Your task to perform on an android device: Clear the shopping cart on amazon. Add "logitech g910" to the cart on amazon Image 0: 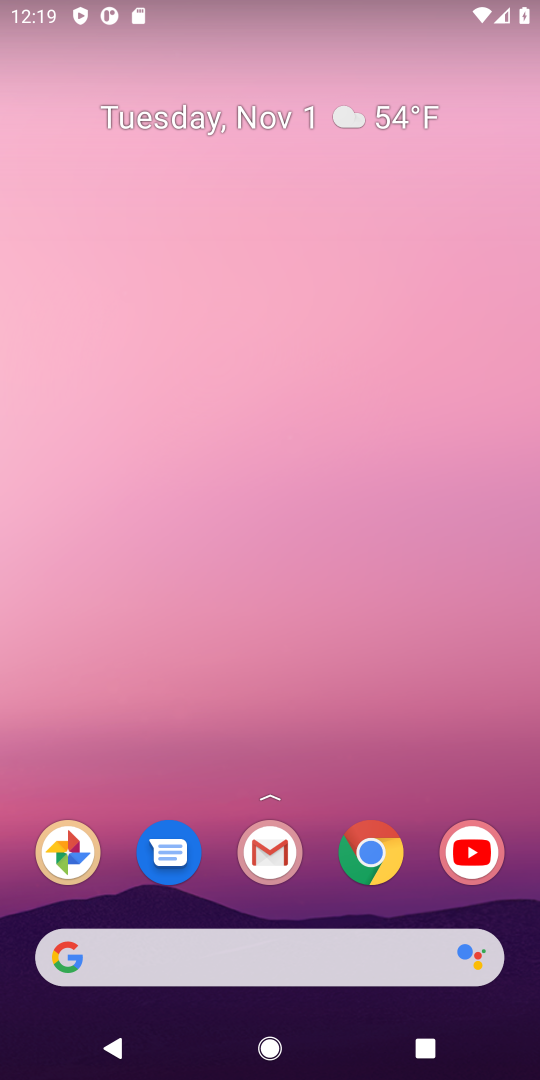
Step 0: click (383, 866)
Your task to perform on an android device: Clear the shopping cart on amazon. Add "logitech g910" to the cart on amazon Image 1: 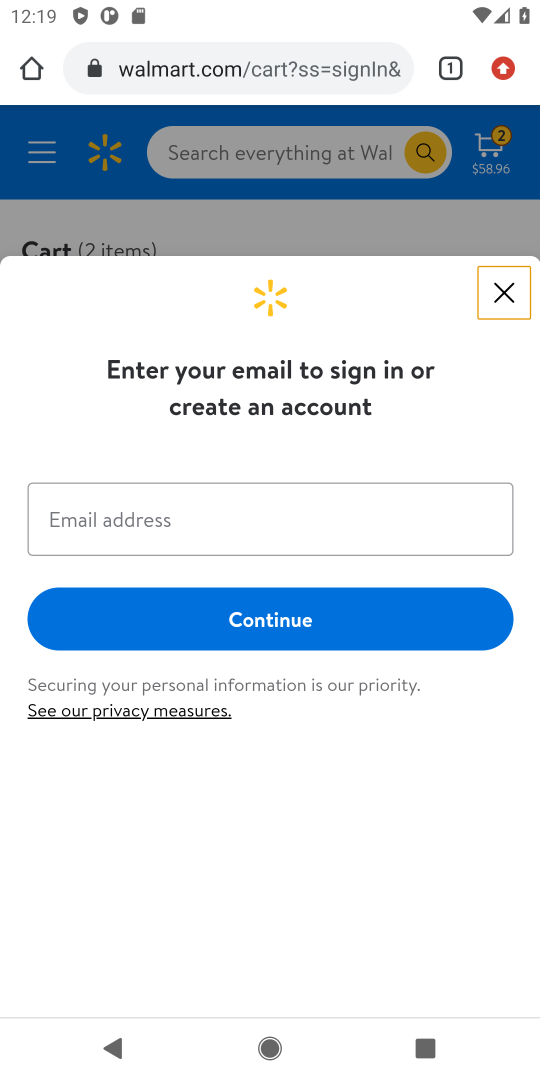
Step 1: click (209, 62)
Your task to perform on an android device: Clear the shopping cart on amazon. Add "logitech g910" to the cart on amazon Image 2: 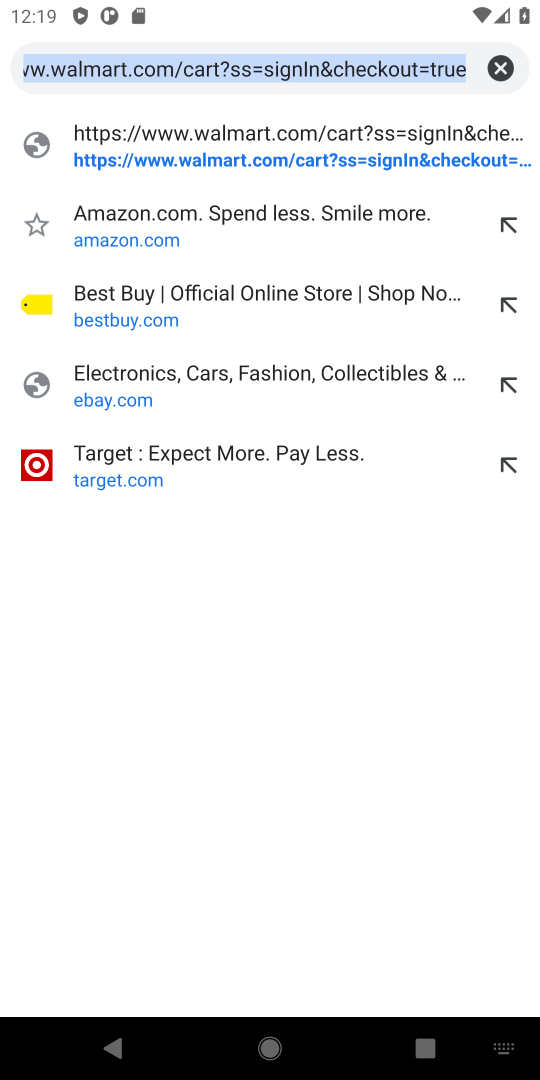
Step 2: type "amazon"
Your task to perform on an android device: Clear the shopping cart on amazon. Add "logitech g910" to the cart on amazon Image 3: 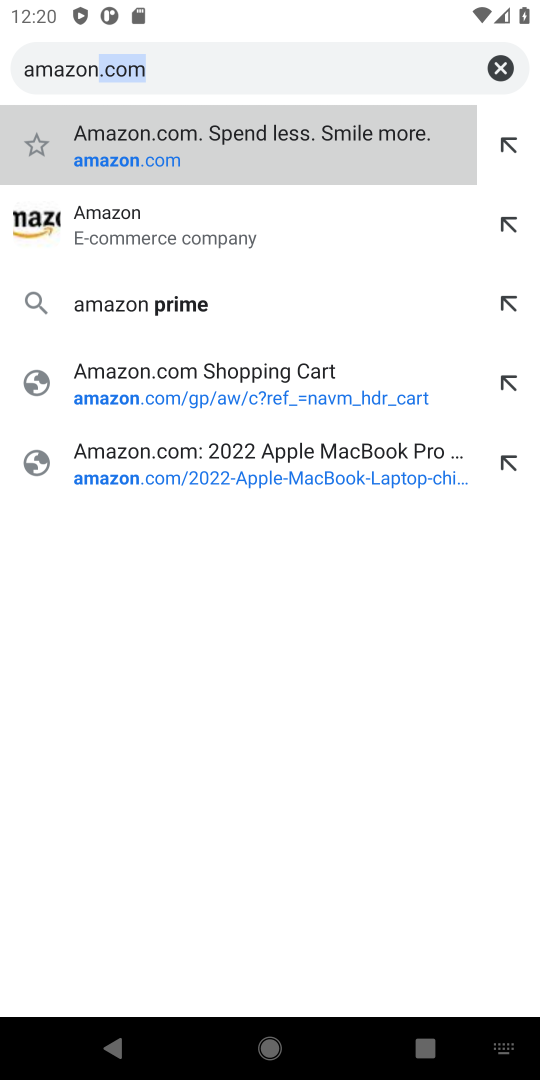
Step 3: press enter
Your task to perform on an android device: Clear the shopping cart on amazon. Add "logitech g910" to the cart on amazon Image 4: 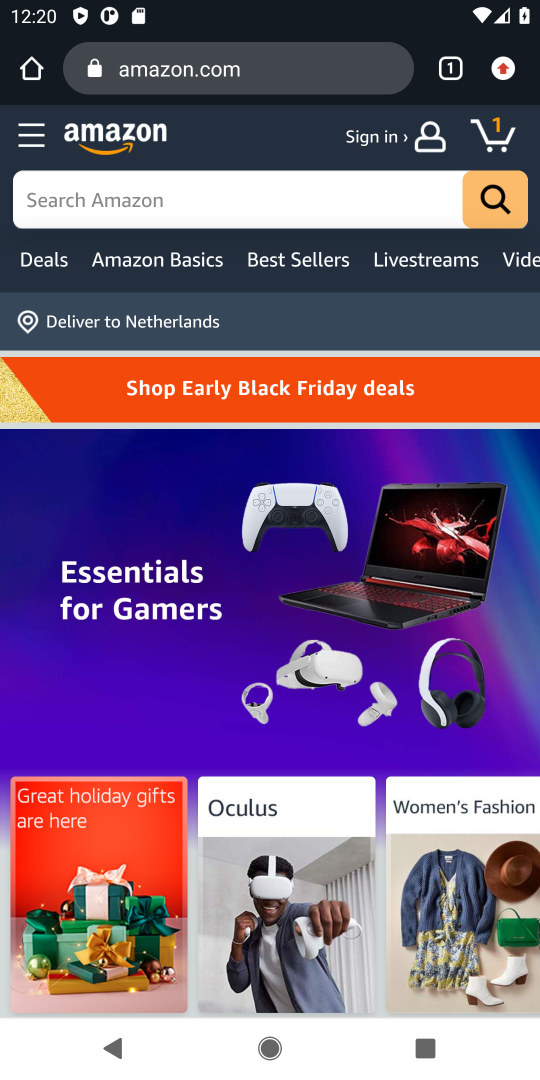
Step 4: click (492, 129)
Your task to perform on an android device: Clear the shopping cart on amazon. Add "logitech g910" to the cart on amazon Image 5: 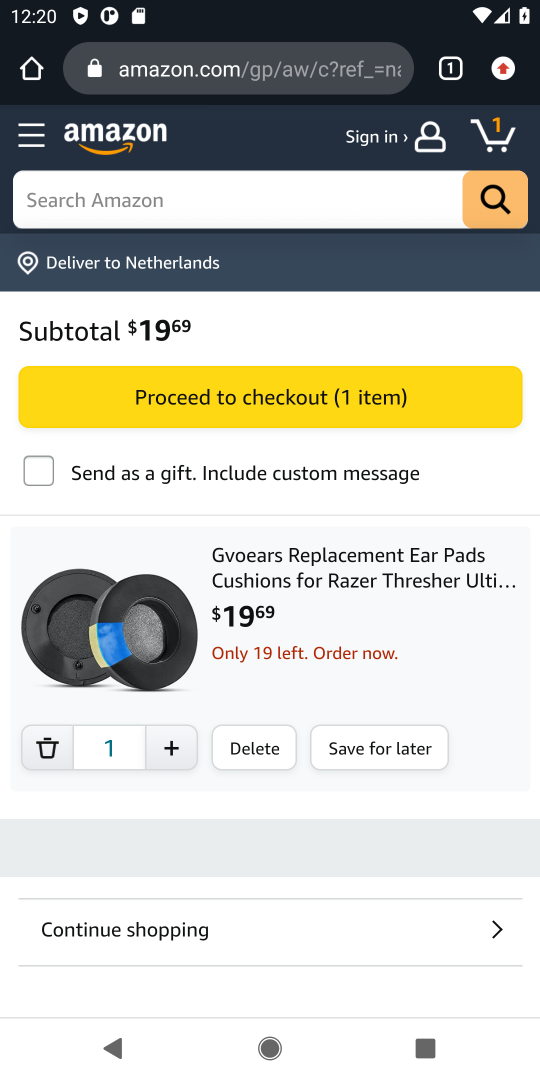
Step 5: click (47, 748)
Your task to perform on an android device: Clear the shopping cart on amazon. Add "logitech g910" to the cart on amazon Image 6: 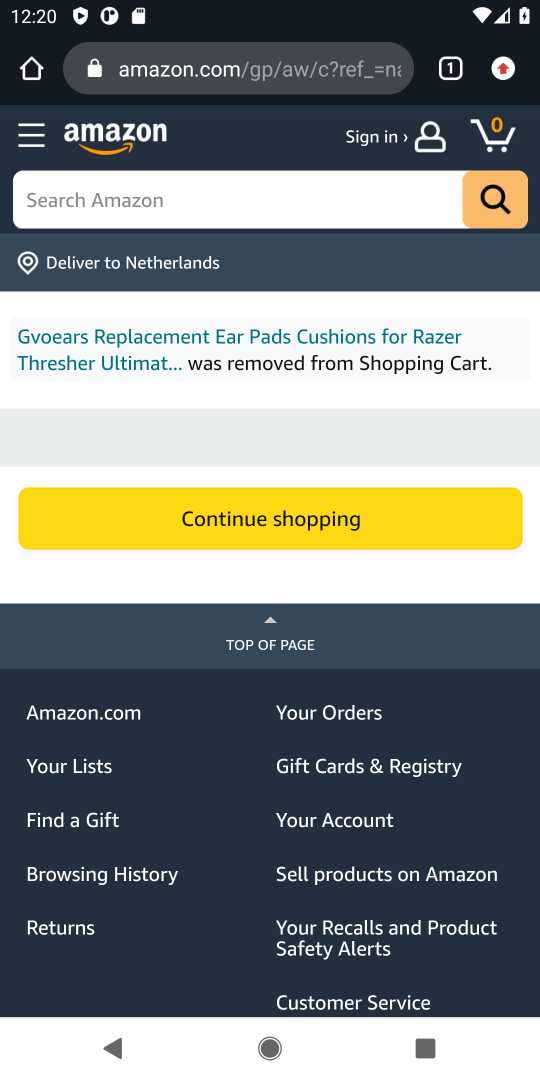
Step 6: click (247, 214)
Your task to perform on an android device: Clear the shopping cart on amazon. Add "logitech g910" to the cart on amazon Image 7: 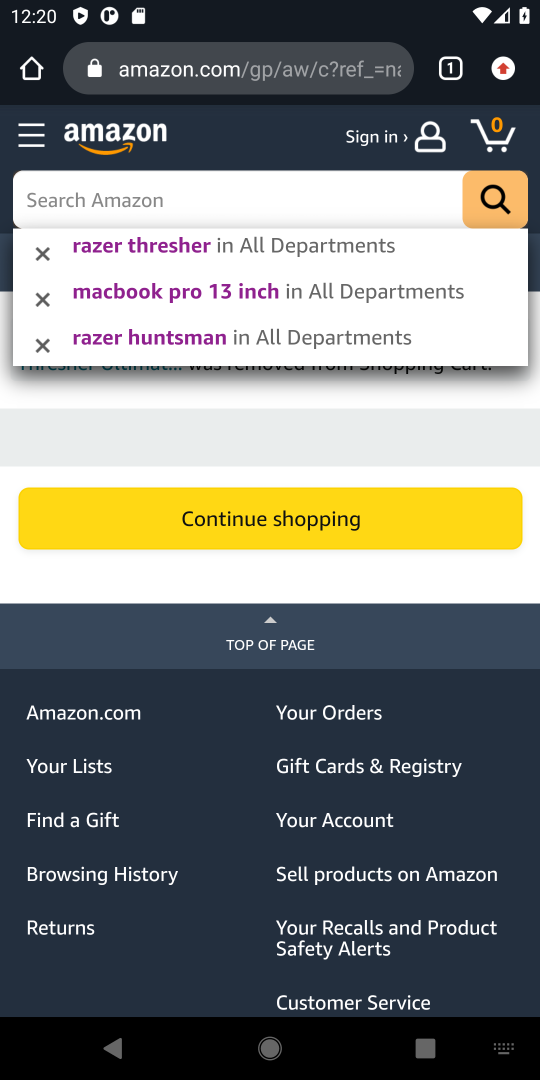
Step 7: type "logitech g910"
Your task to perform on an android device: Clear the shopping cart on amazon. Add "logitech g910" to the cart on amazon Image 8: 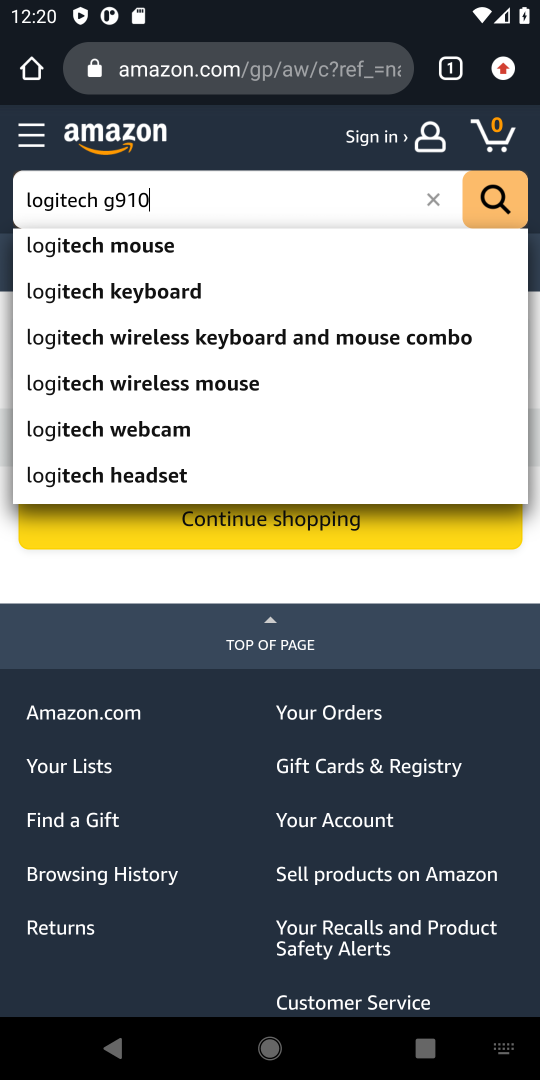
Step 8: type ""
Your task to perform on an android device: Clear the shopping cart on amazon. Add "logitech g910" to the cart on amazon Image 9: 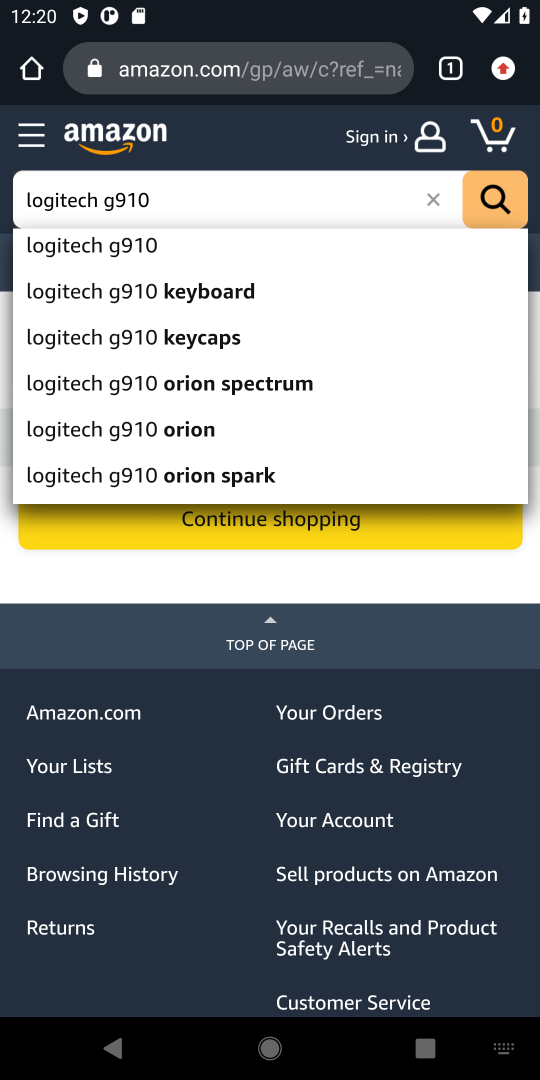
Step 9: press enter
Your task to perform on an android device: Clear the shopping cart on amazon. Add "logitech g910" to the cart on amazon Image 10: 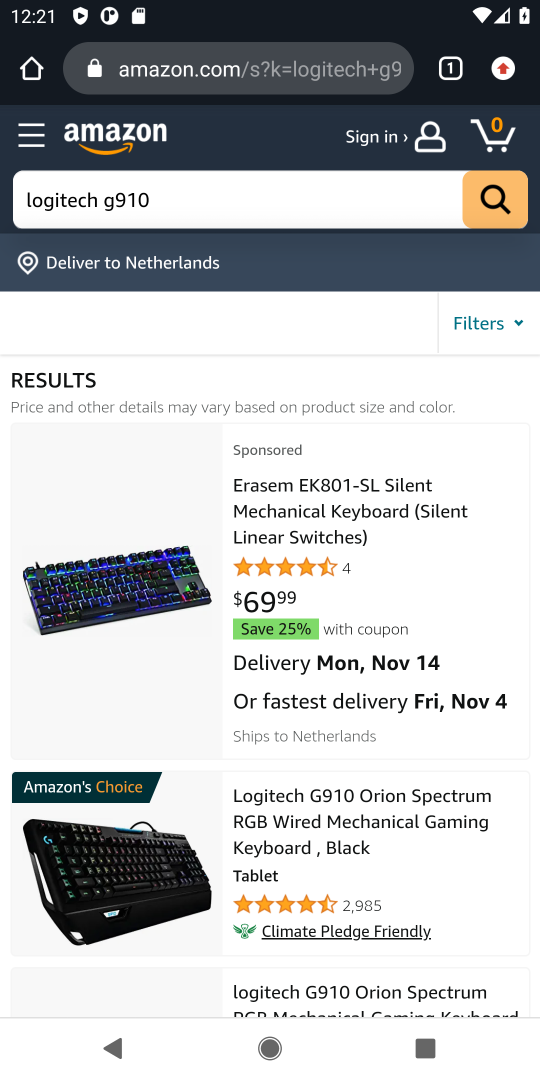
Step 10: click (328, 833)
Your task to perform on an android device: Clear the shopping cart on amazon. Add "logitech g910" to the cart on amazon Image 11: 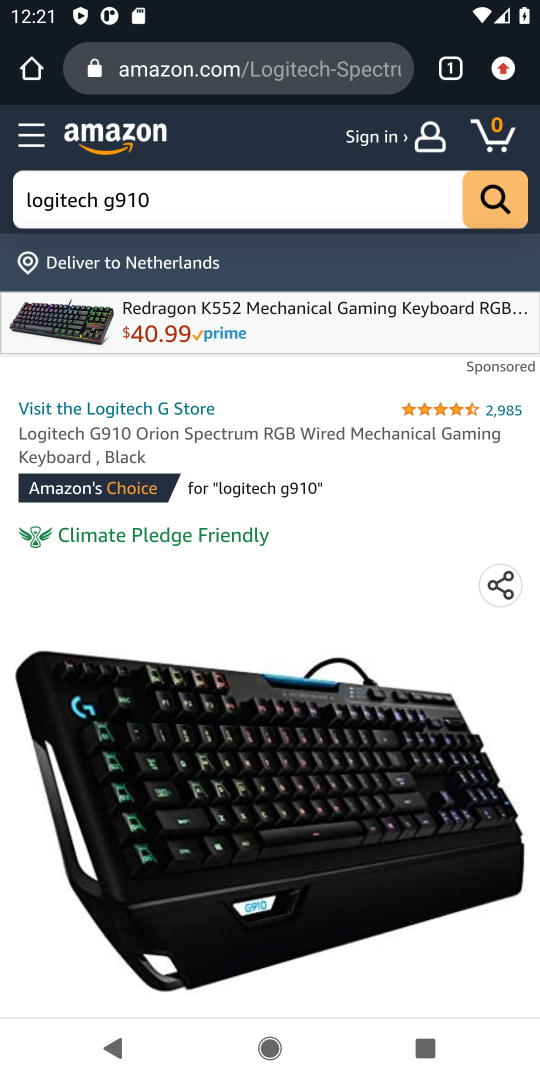
Step 11: drag from (308, 782) to (276, 208)
Your task to perform on an android device: Clear the shopping cart on amazon. Add "logitech g910" to the cart on amazon Image 12: 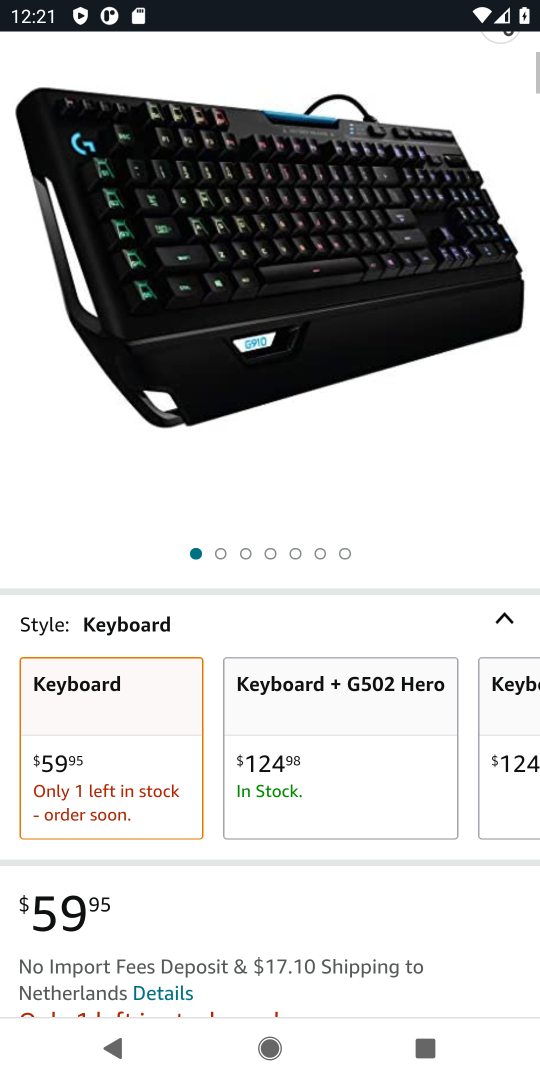
Step 12: drag from (287, 895) to (269, 334)
Your task to perform on an android device: Clear the shopping cart on amazon. Add "logitech g910" to the cart on amazon Image 13: 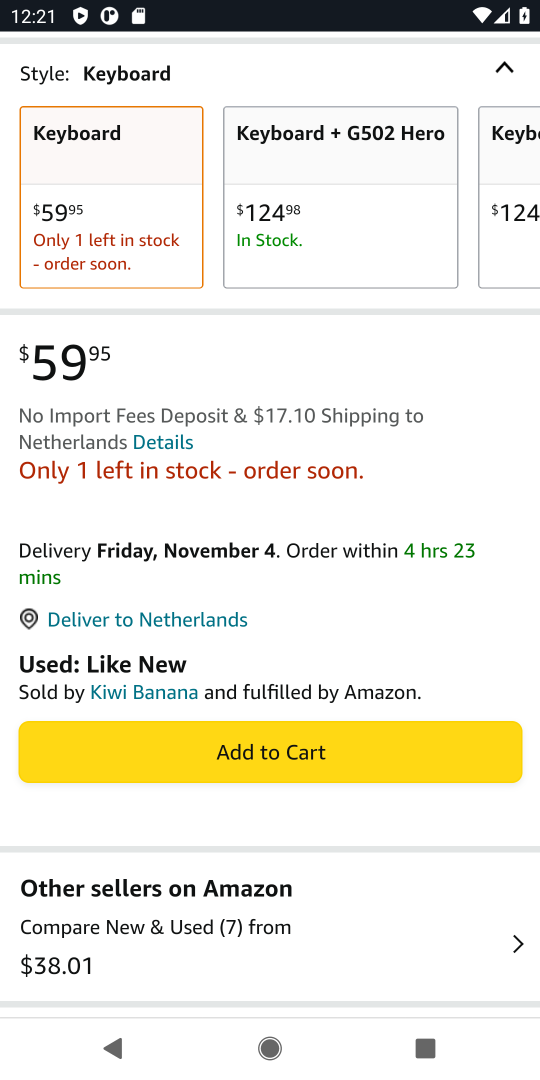
Step 13: click (316, 742)
Your task to perform on an android device: Clear the shopping cart on amazon. Add "logitech g910" to the cart on amazon Image 14: 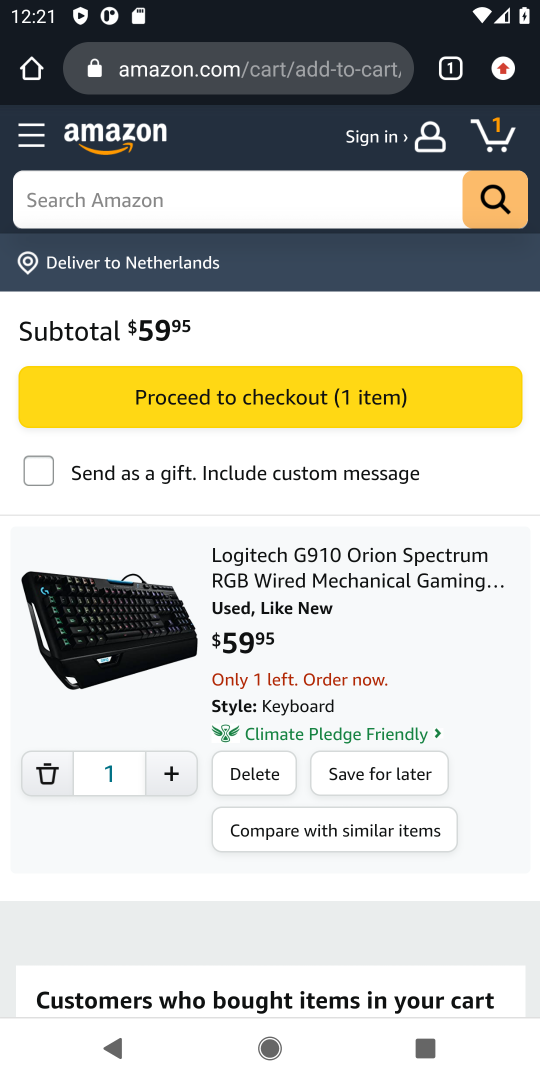
Step 14: task complete